Your task to perform on an android device: Search for a runner rug on Crate & Barrel Image 0: 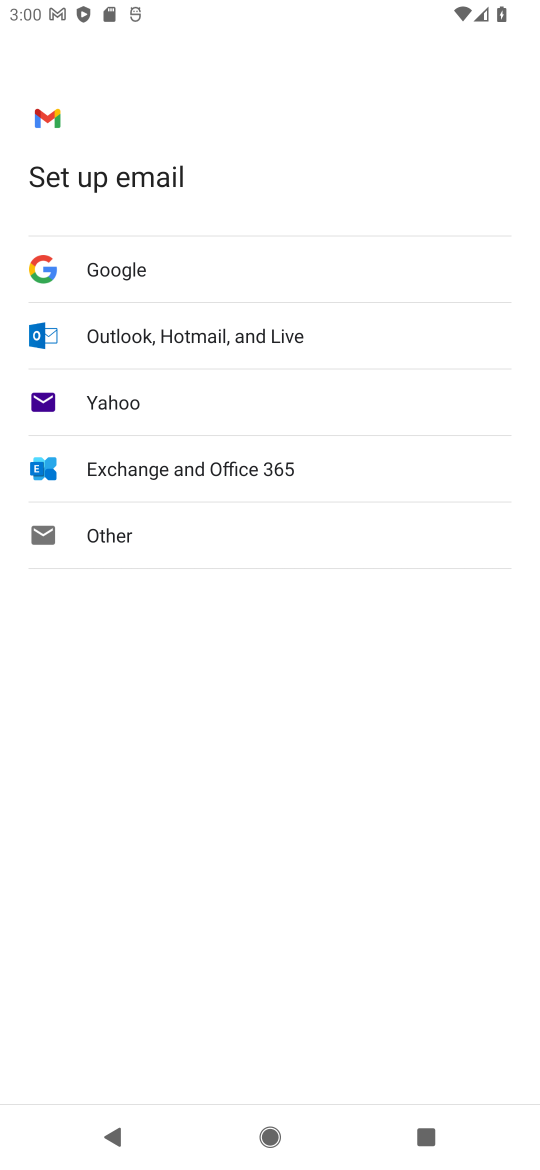
Step 0: press home button
Your task to perform on an android device: Search for a runner rug on Crate & Barrel Image 1: 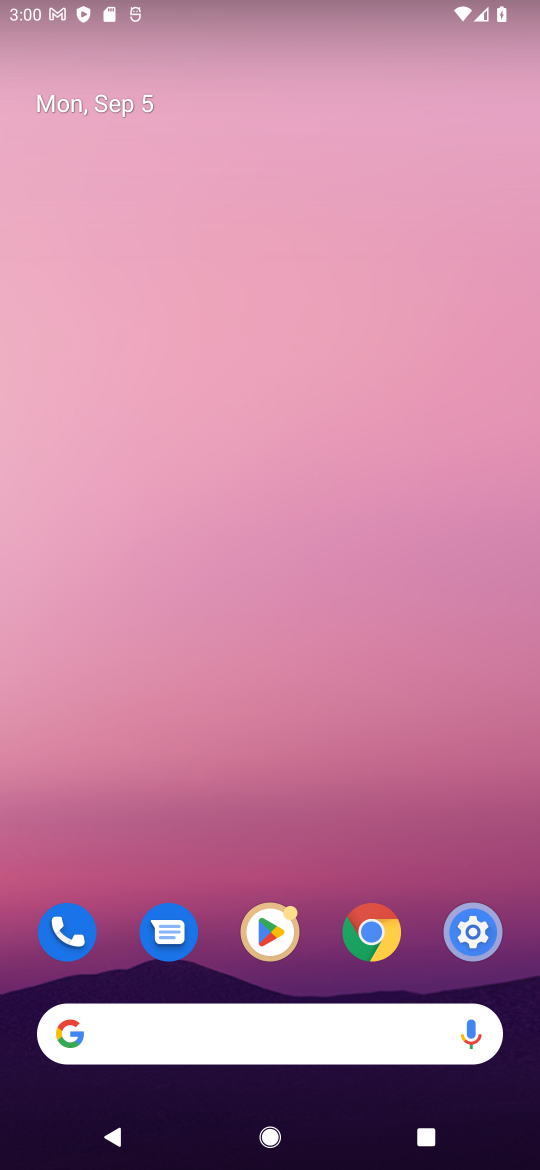
Step 1: click (301, 1040)
Your task to perform on an android device: Search for a runner rug on Crate & Barrel Image 2: 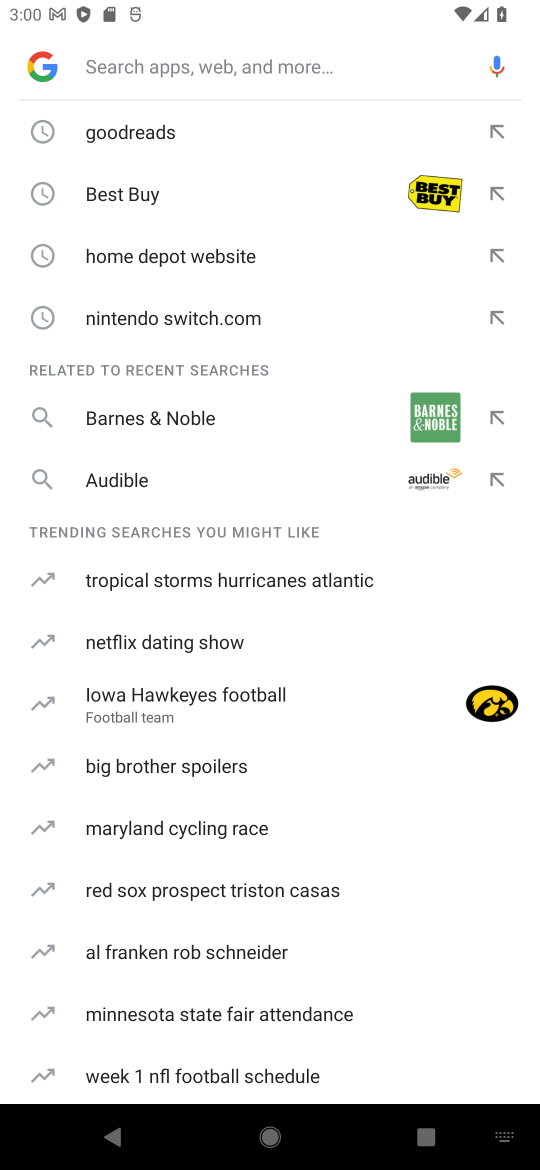
Step 2: type "Crate & Barrel"
Your task to perform on an android device: Search for a runner rug on Crate & Barrel Image 3: 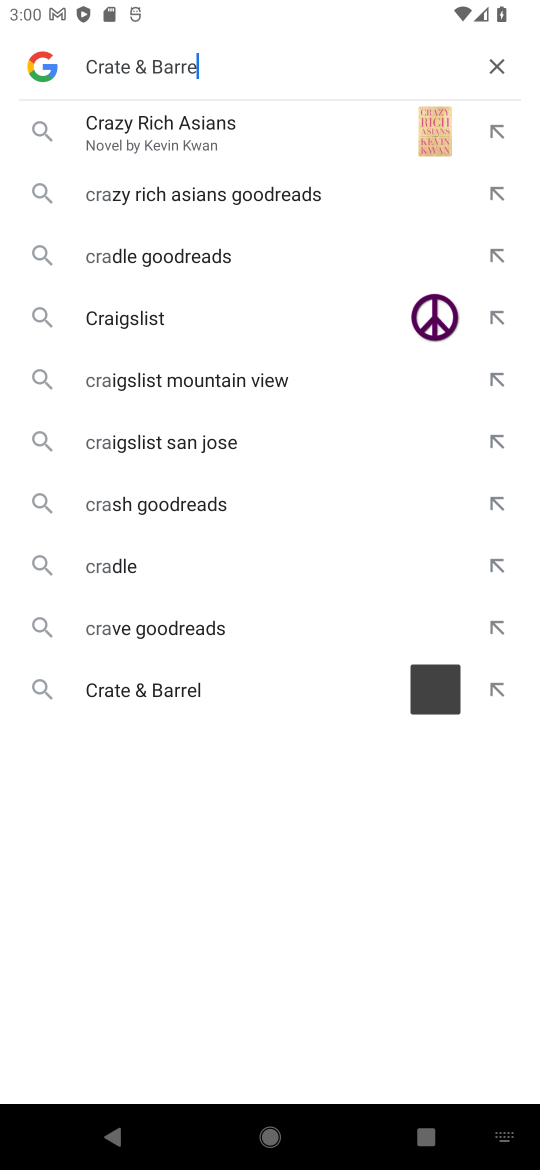
Step 3: type ""
Your task to perform on an android device: Search for a runner rug on Crate & Barrel Image 4: 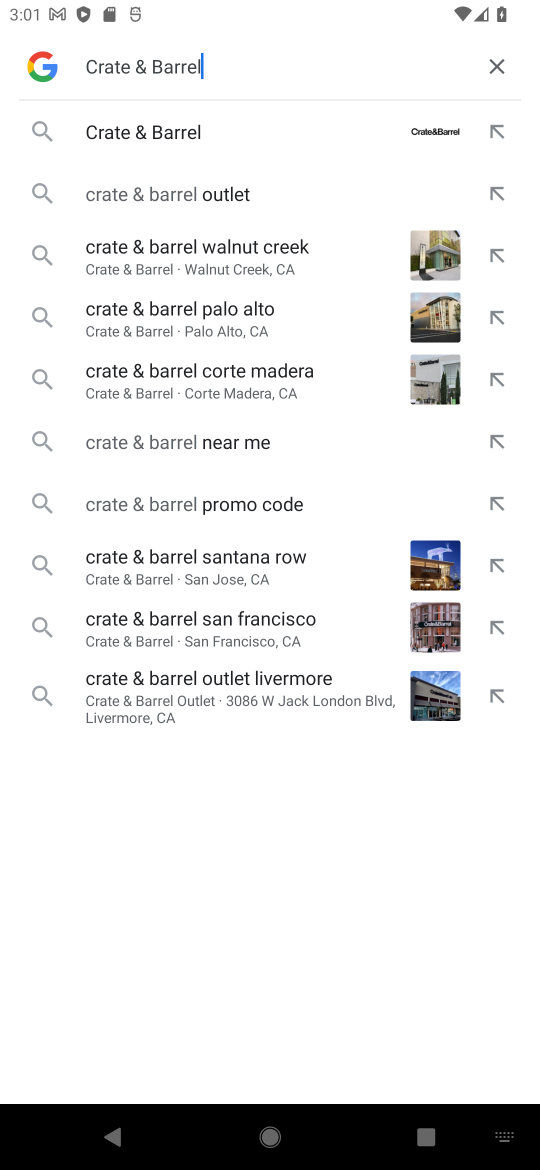
Step 4: click (198, 134)
Your task to perform on an android device: Search for a runner rug on Crate & Barrel Image 5: 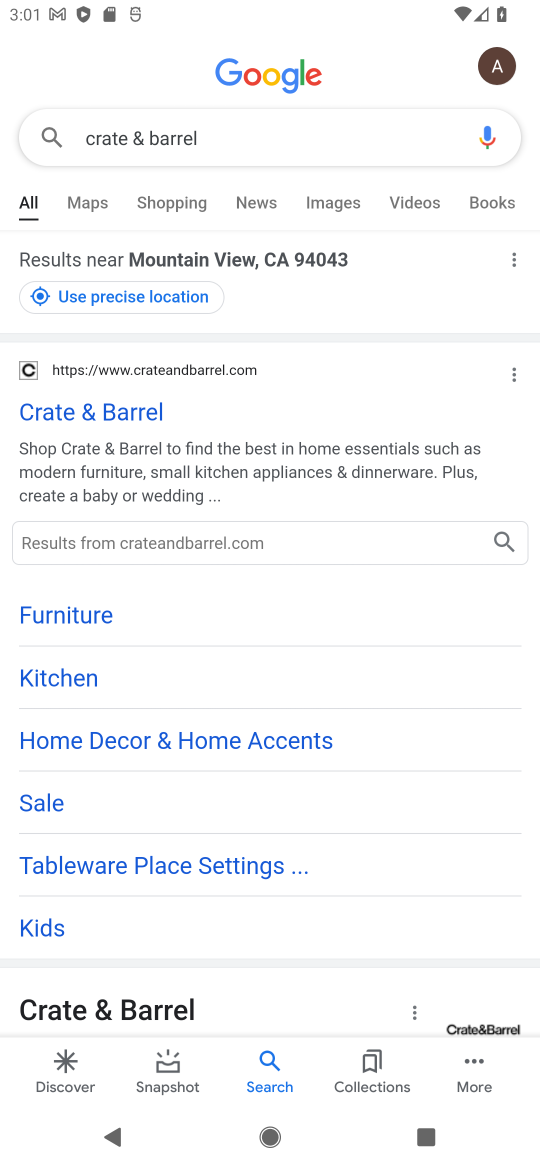
Step 5: click (156, 410)
Your task to perform on an android device: Search for a runner rug on Crate & Barrel Image 6: 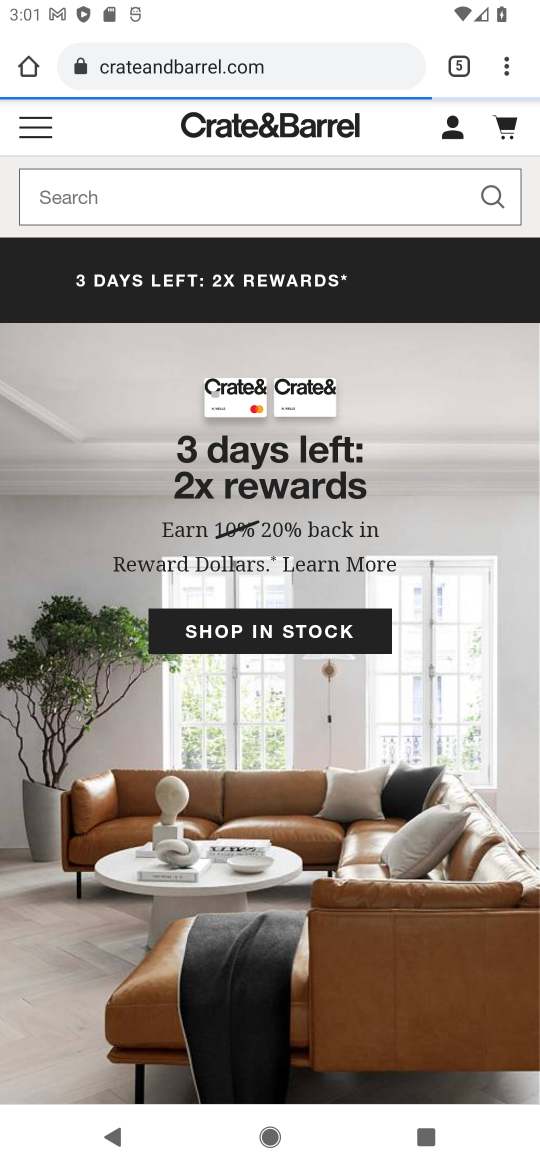
Step 6: click (201, 196)
Your task to perform on an android device: Search for a runner rug on Crate & Barrel Image 7: 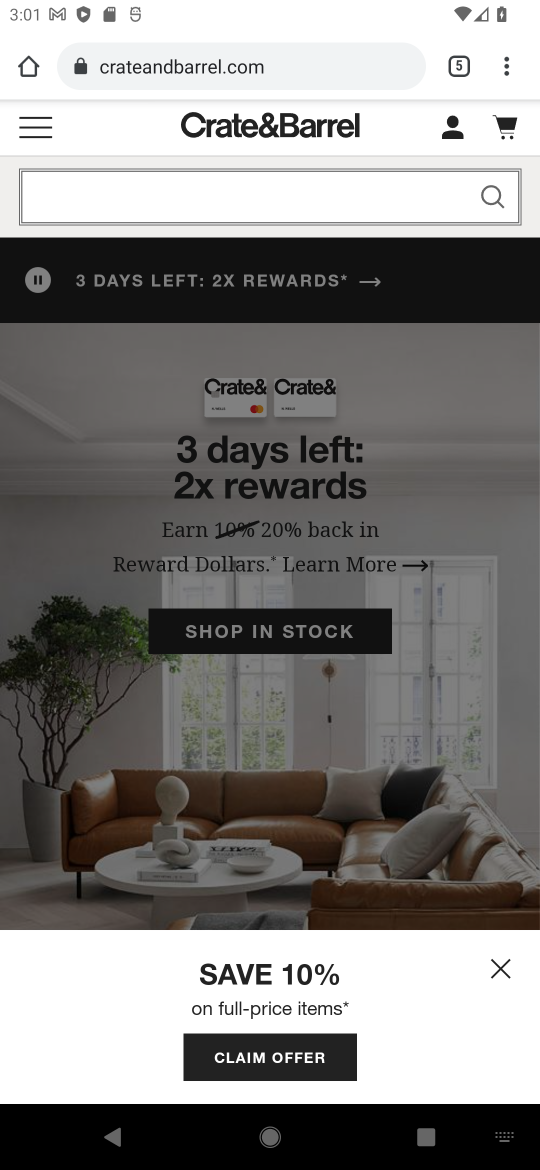
Step 7: type "runner rug"
Your task to perform on an android device: Search for a runner rug on Crate & Barrel Image 8: 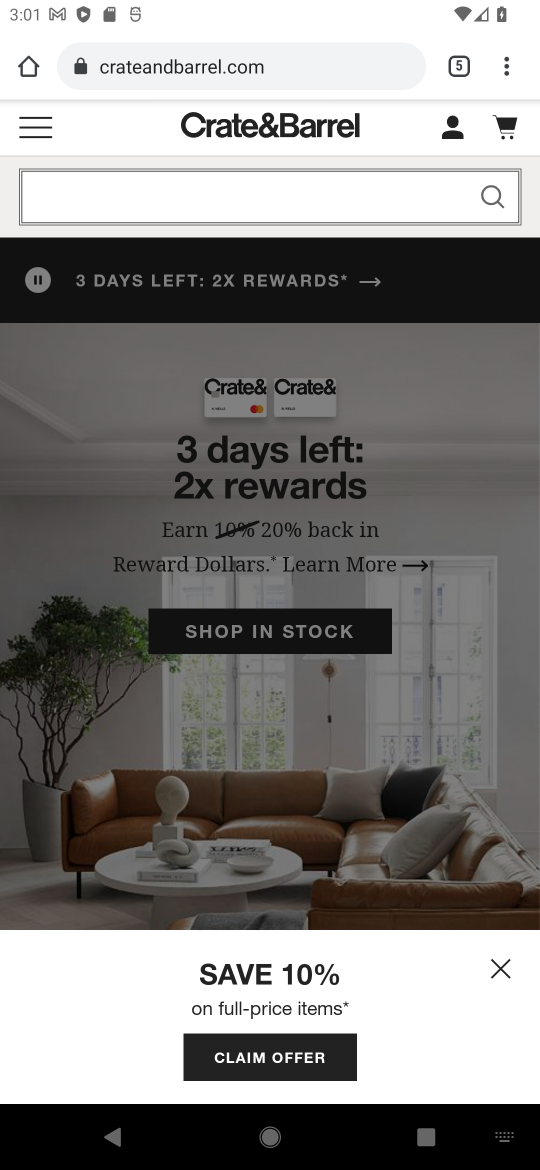
Step 8: type ""
Your task to perform on an android device: Search for a runner rug on Crate & Barrel Image 9: 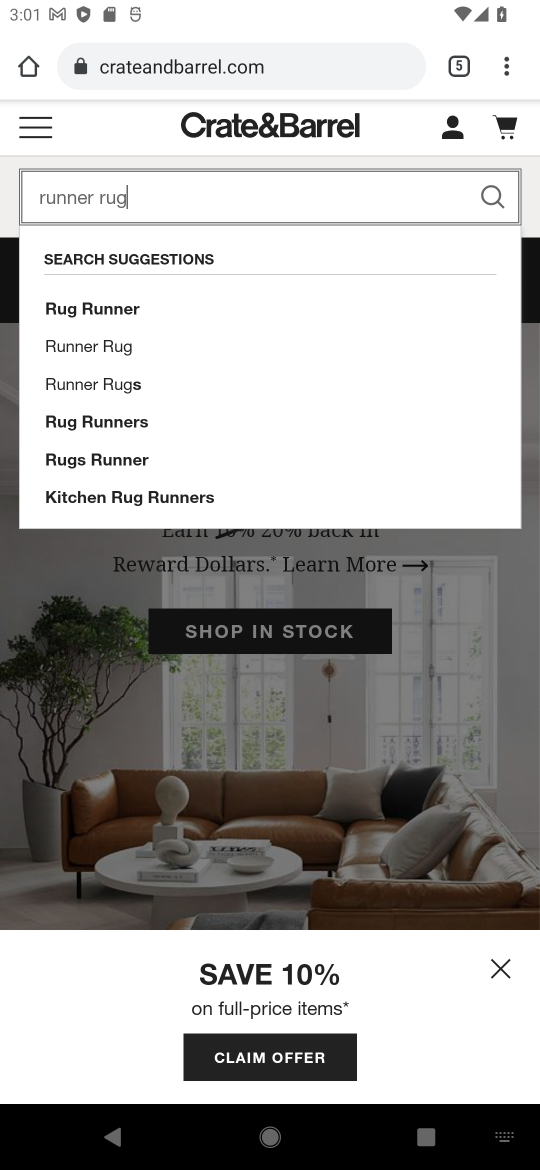
Step 9: click (132, 343)
Your task to perform on an android device: Search for a runner rug on Crate & Barrel Image 10: 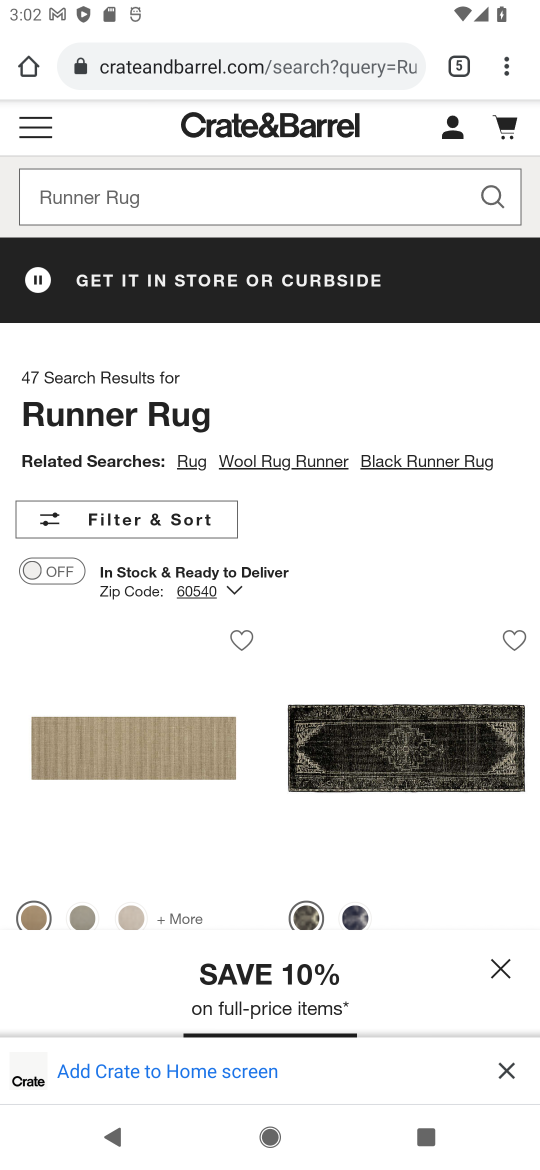
Step 10: task complete